Your task to perform on an android device: Open eBay Image 0: 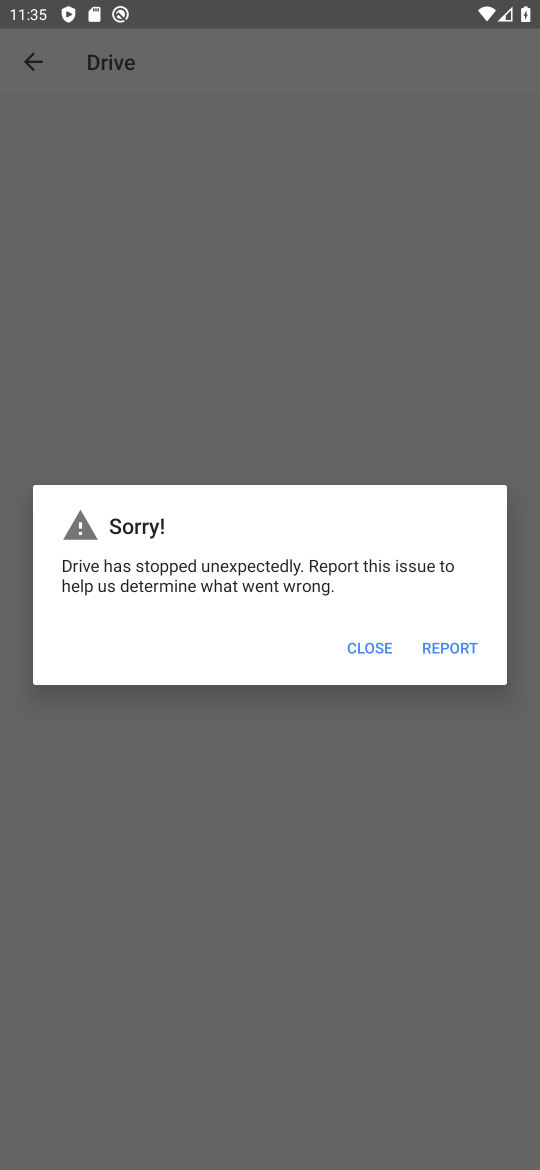
Step 0: task complete